Your task to perform on an android device: remove spam from my inbox in the gmail app Image 0: 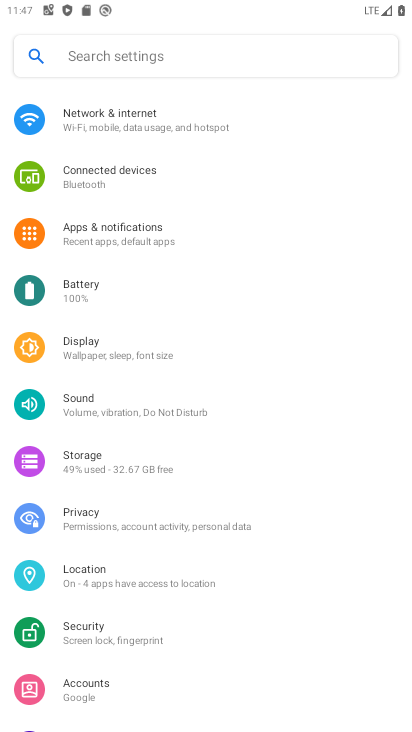
Step 0: press home button
Your task to perform on an android device: remove spam from my inbox in the gmail app Image 1: 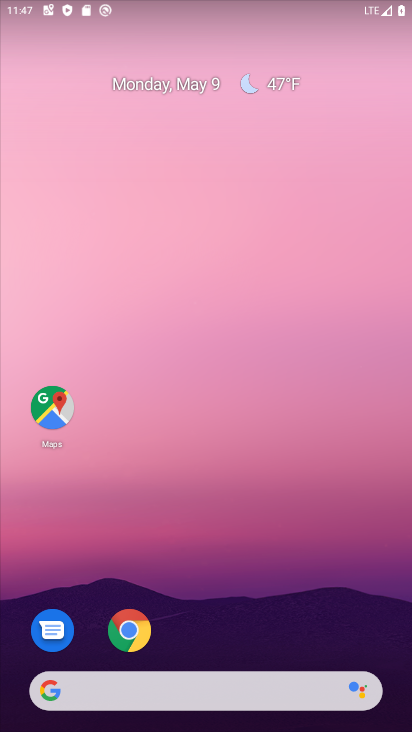
Step 1: drag from (187, 689) to (322, 141)
Your task to perform on an android device: remove spam from my inbox in the gmail app Image 2: 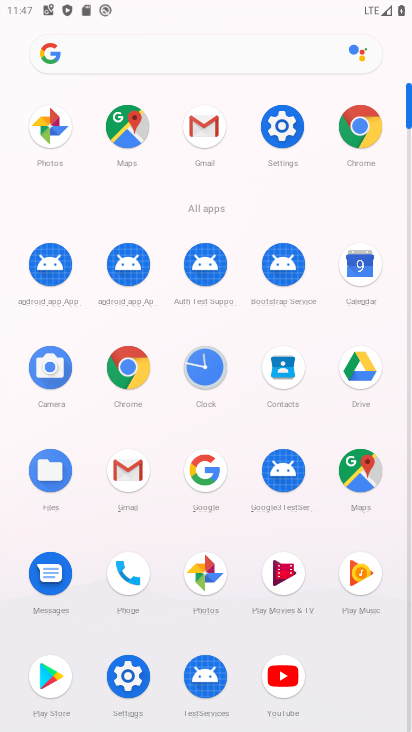
Step 2: click (201, 130)
Your task to perform on an android device: remove spam from my inbox in the gmail app Image 3: 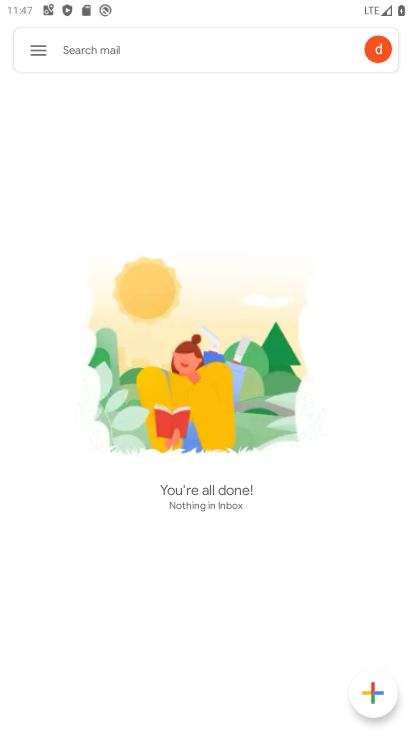
Step 3: click (42, 48)
Your task to perform on an android device: remove spam from my inbox in the gmail app Image 4: 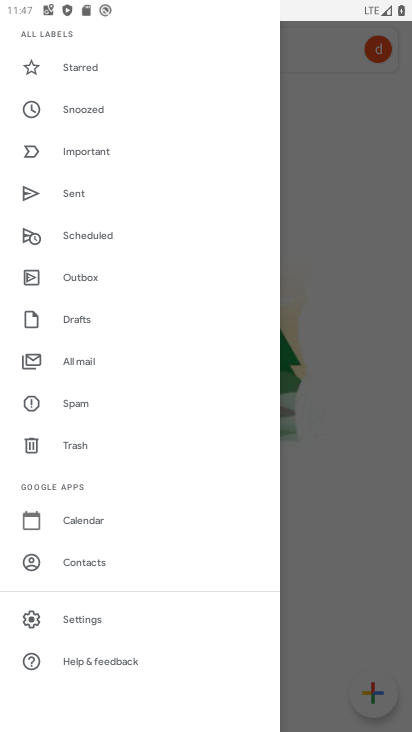
Step 4: click (84, 405)
Your task to perform on an android device: remove spam from my inbox in the gmail app Image 5: 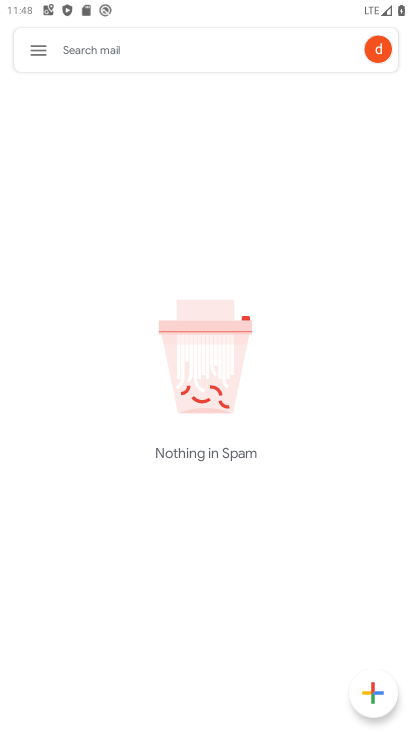
Step 5: task complete